Your task to perform on an android device: toggle improve location accuracy Image 0: 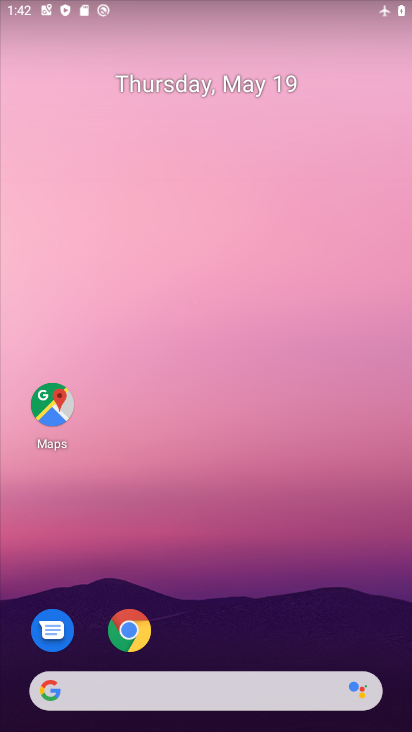
Step 0: drag from (206, 661) to (108, 67)
Your task to perform on an android device: toggle improve location accuracy Image 1: 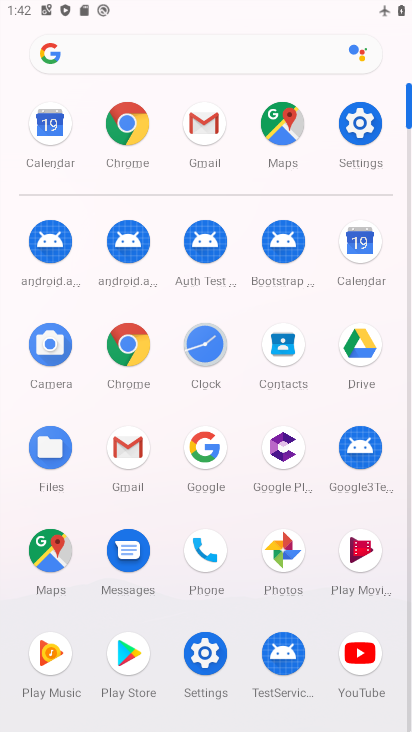
Step 1: click (354, 132)
Your task to perform on an android device: toggle improve location accuracy Image 2: 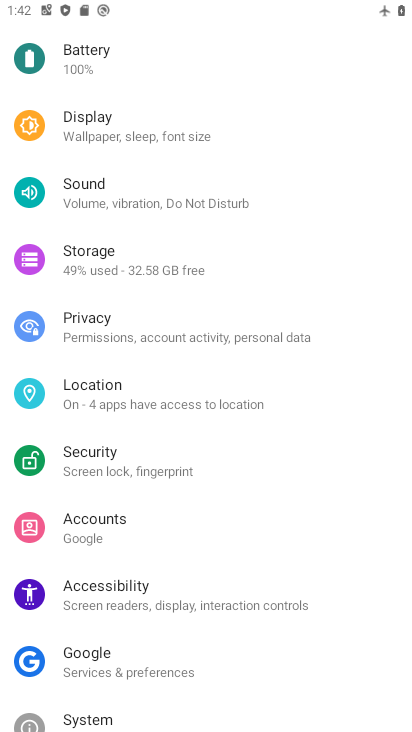
Step 2: click (142, 410)
Your task to perform on an android device: toggle improve location accuracy Image 3: 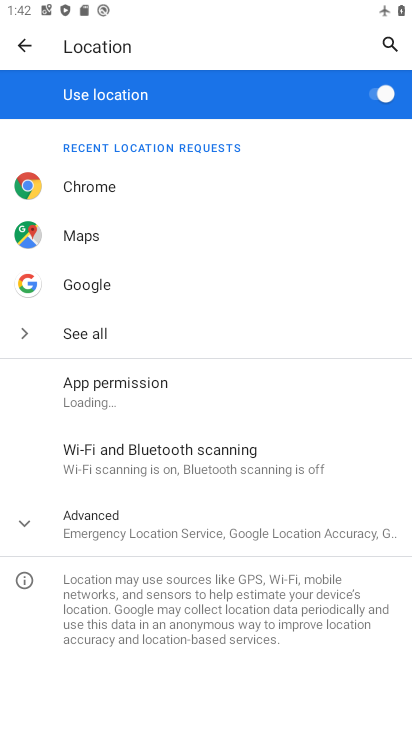
Step 3: click (149, 522)
Your task to perform on an android device: toggle improve location accuracy Image 4: 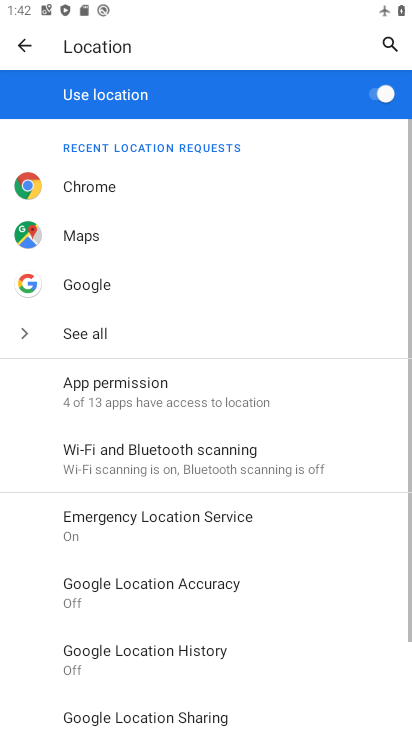
Step 4: click (166, 578)
Your task to perform on an android device: toggle improve location accuracy Image 5: 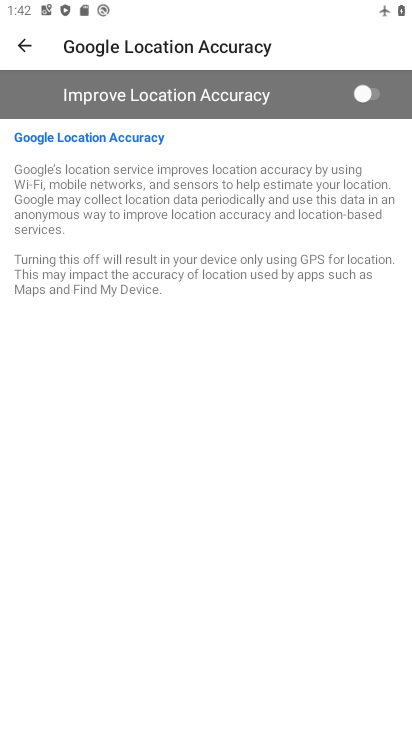
Step 5: click (361, 81)
Your task to perform on an android device: toggle improve location accuracy Image 6: 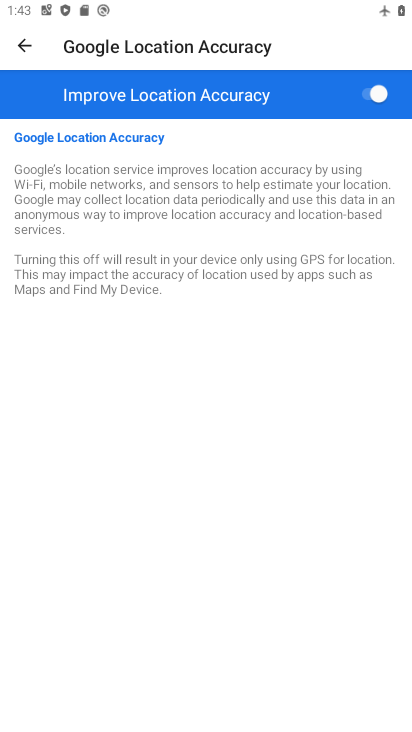
Step 6: task complete